Your task to perform on an android device: Open my contact list Image 0: 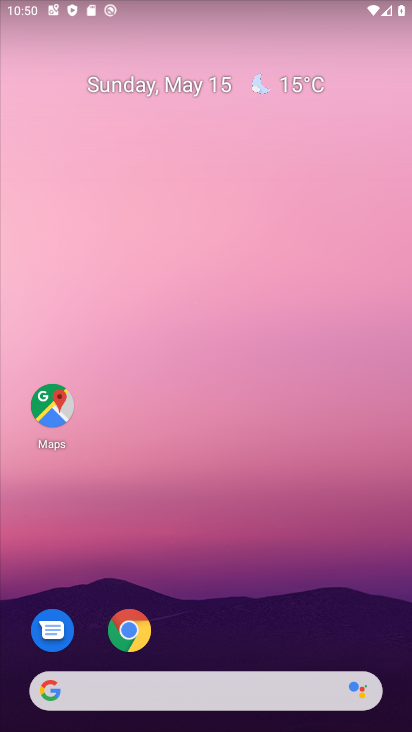
Step 0: drag from (199, 725) to (154, 61)
Your task to perform on an android device: Open my contact list Image 1: 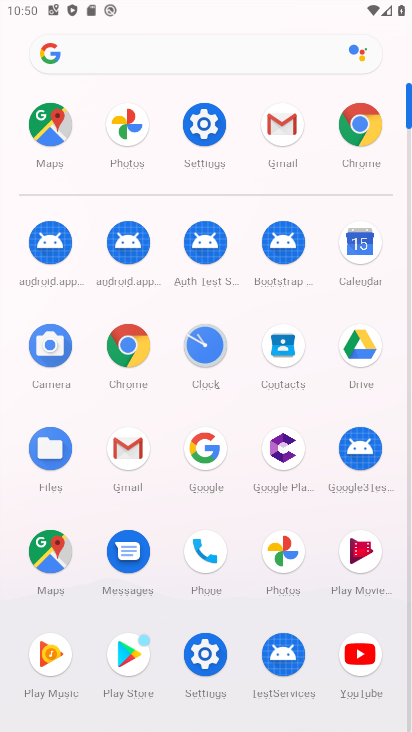
Step 1: click (282, 341)
Your task to perform on an android device: Open my contact list Image 2: 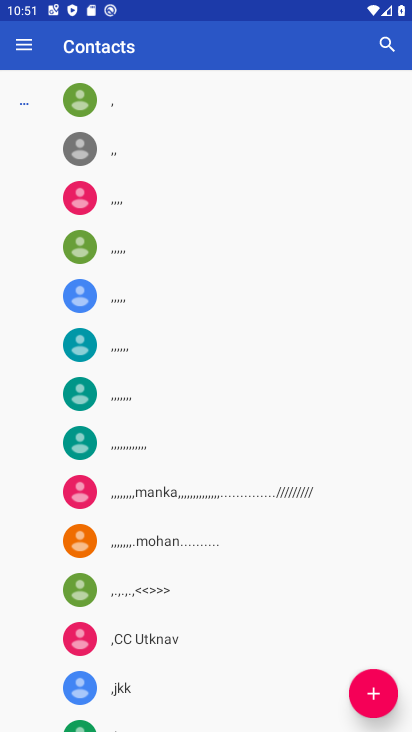
Step 2: task complete